Your task to perform on an android device: turn on priority inbox in the gmail app Image 0: 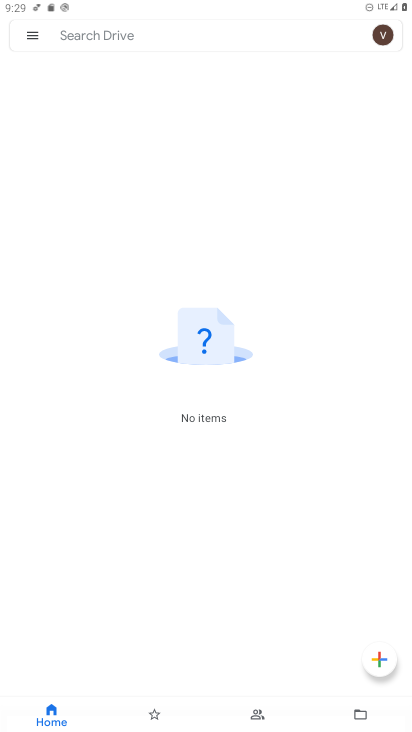
Step 0: press home button
Your task to perform on an android device: turn on priority inbox in the gmail app Image 1: 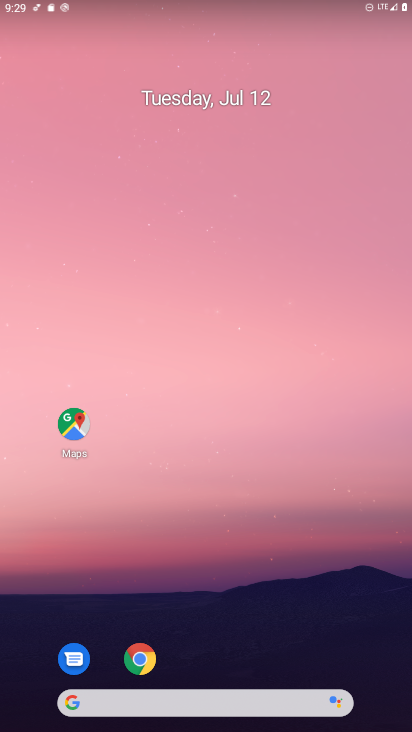
Step 1: drag from (183, 699) to (284, 283)
Your task to perform on an android device: turn on priority inbox in the gmail app Image 2: 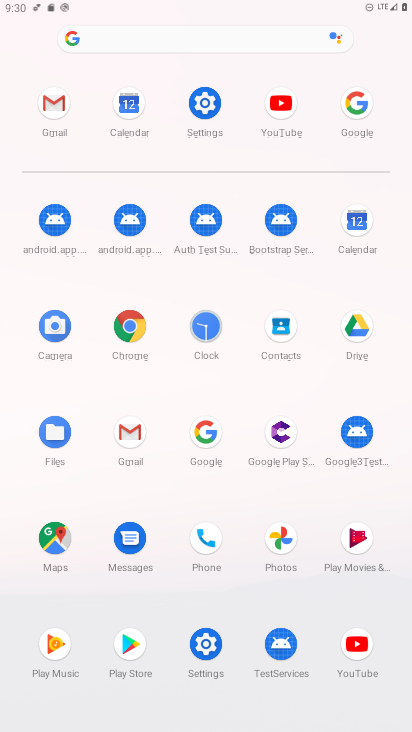
Step 2: click (129, 430)
Your task to perform on an android device: turn on priority inbox in the gmail app Image 3: 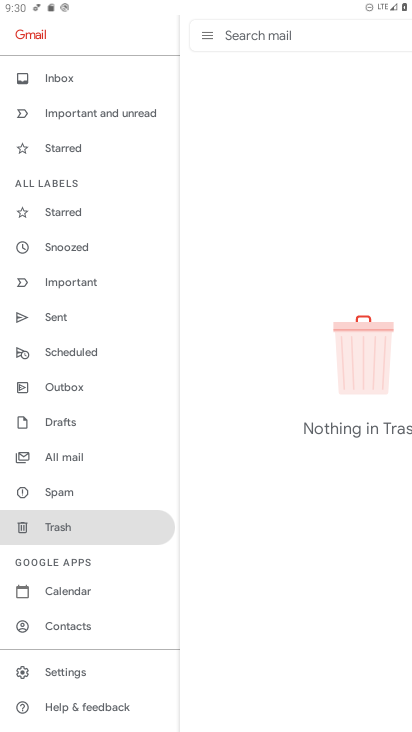
Step 3: click (64, 671)
Your task to perform on an android device: turn on priority inbox in the gmail app Image 4: 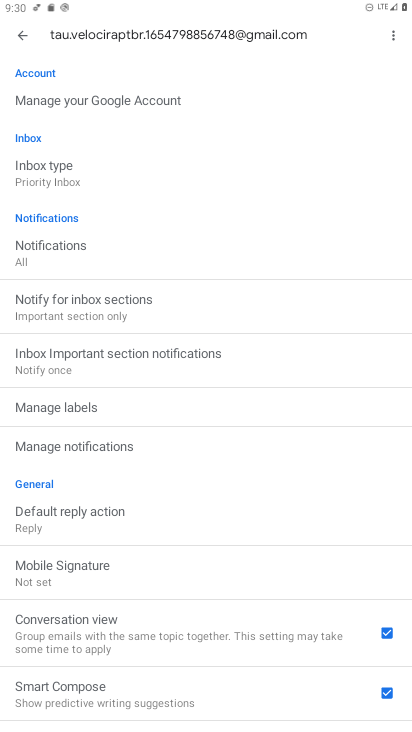
Step 4: click (52, 186)
Your task to perform on an android device: turn on priority inbox in the gmail app Image 5: 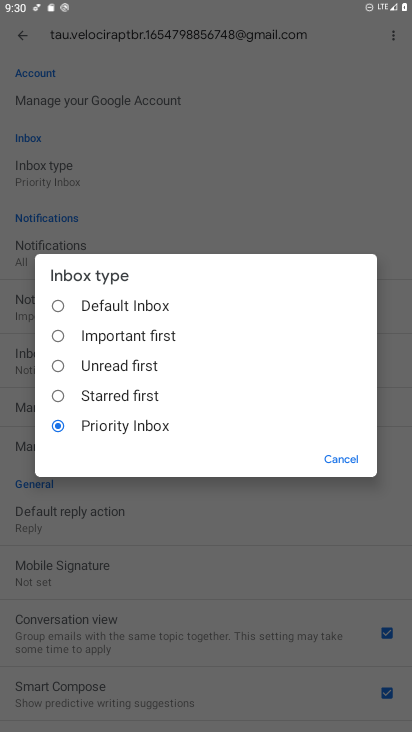
Step 5: click (59, 426)
Your task to perform on an android device: turn on priority inbox in the gmail app Image 6: 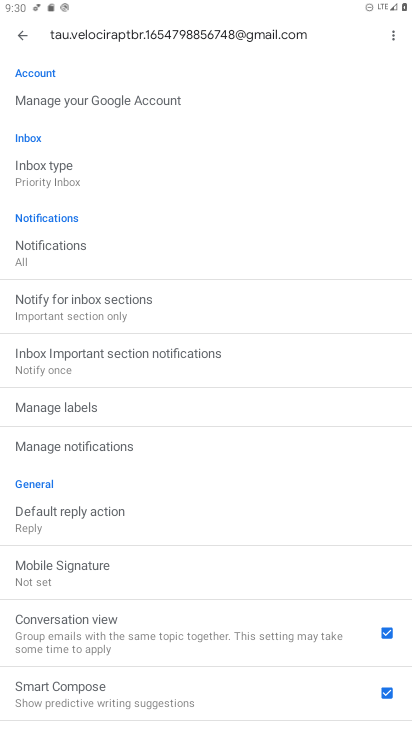
Step 6: task complete